Your task to perform on an android device: Search for Italian restaurants on Maps Image 0: 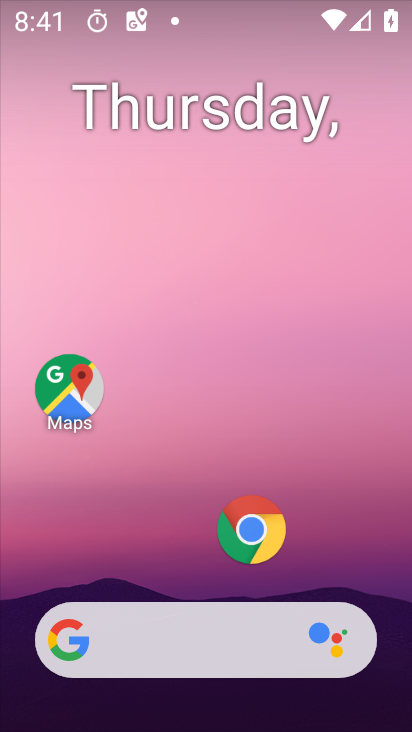
Step 0: drag from (198, 585) to (208, 2)
Your task to perform on an android device: Search for Italian restaurants on Maps Image 1: 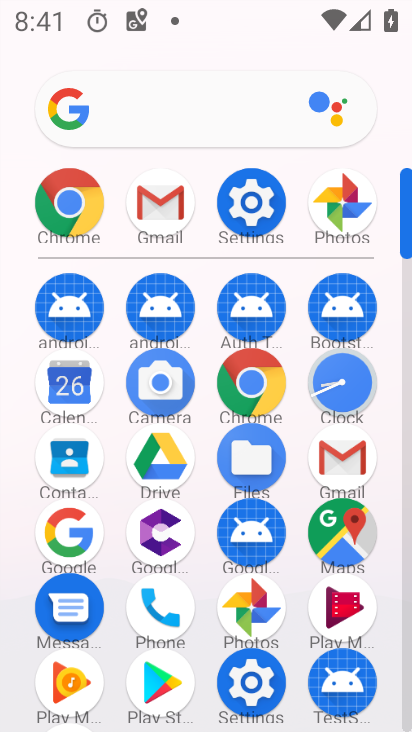
Step 1: click (338, 527)
Your task to perform on an android device: Search for Italian restaurants on Maps Image 2: 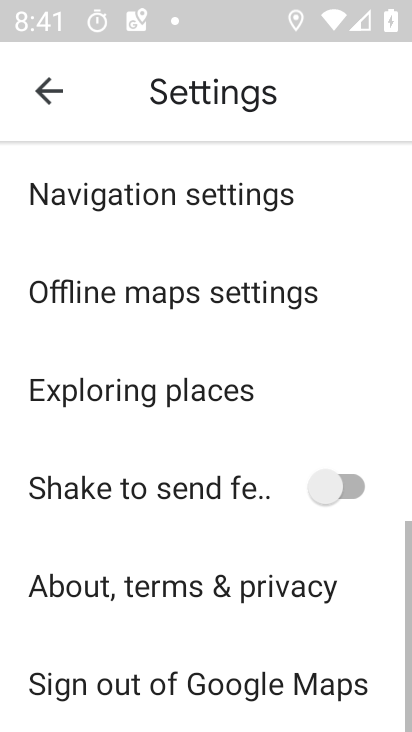
Step 2: click (44, 99)
Your task to perform on an android device: Search for Italian restaurants on Maps Image 3: 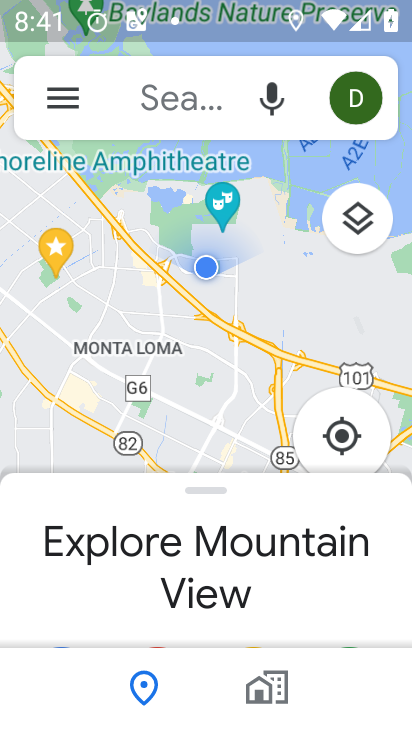
Step 3: click (158, 96)
Your task to perform on an android device: Search for Italian restaurants on Maps Image 4: 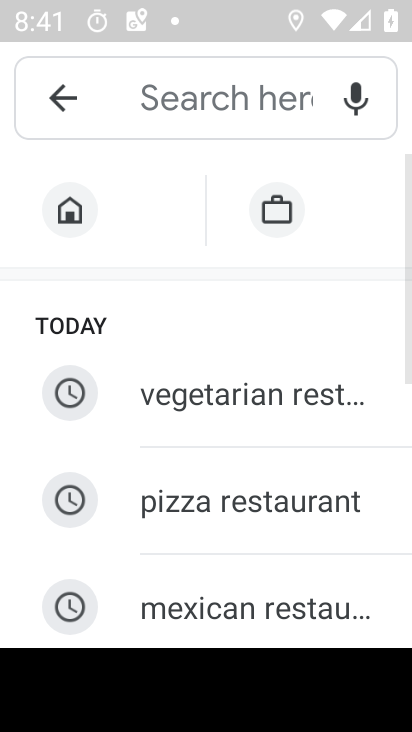
Step 4: drag from (198, 590) to (195, 140)
Your task to perform on an android device: Search for Italian restaurants on Maps Image 5: 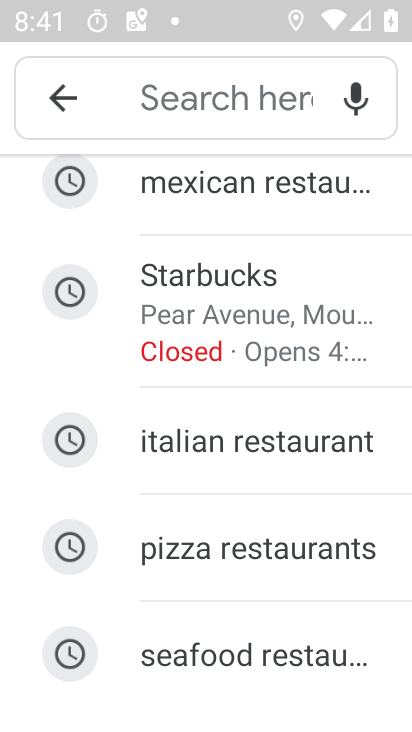
Step 5: click (214, 448)
Your task to perform on an android device: Search for Italian restaurants on Maps Image 6: 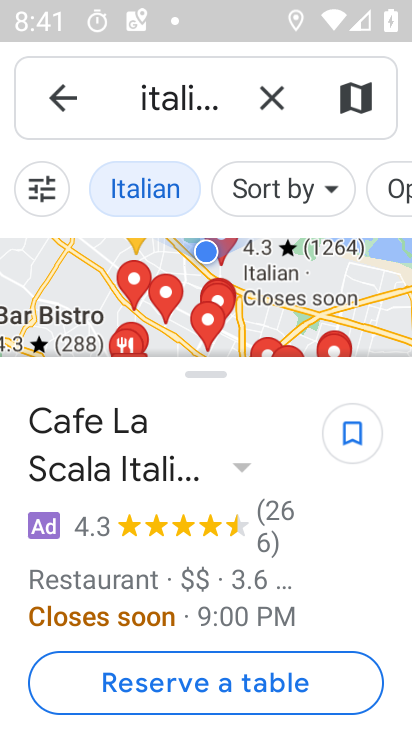
Step 6: task complete